Your task to perform on an android device: Open a new private window in Chrome Image 0: 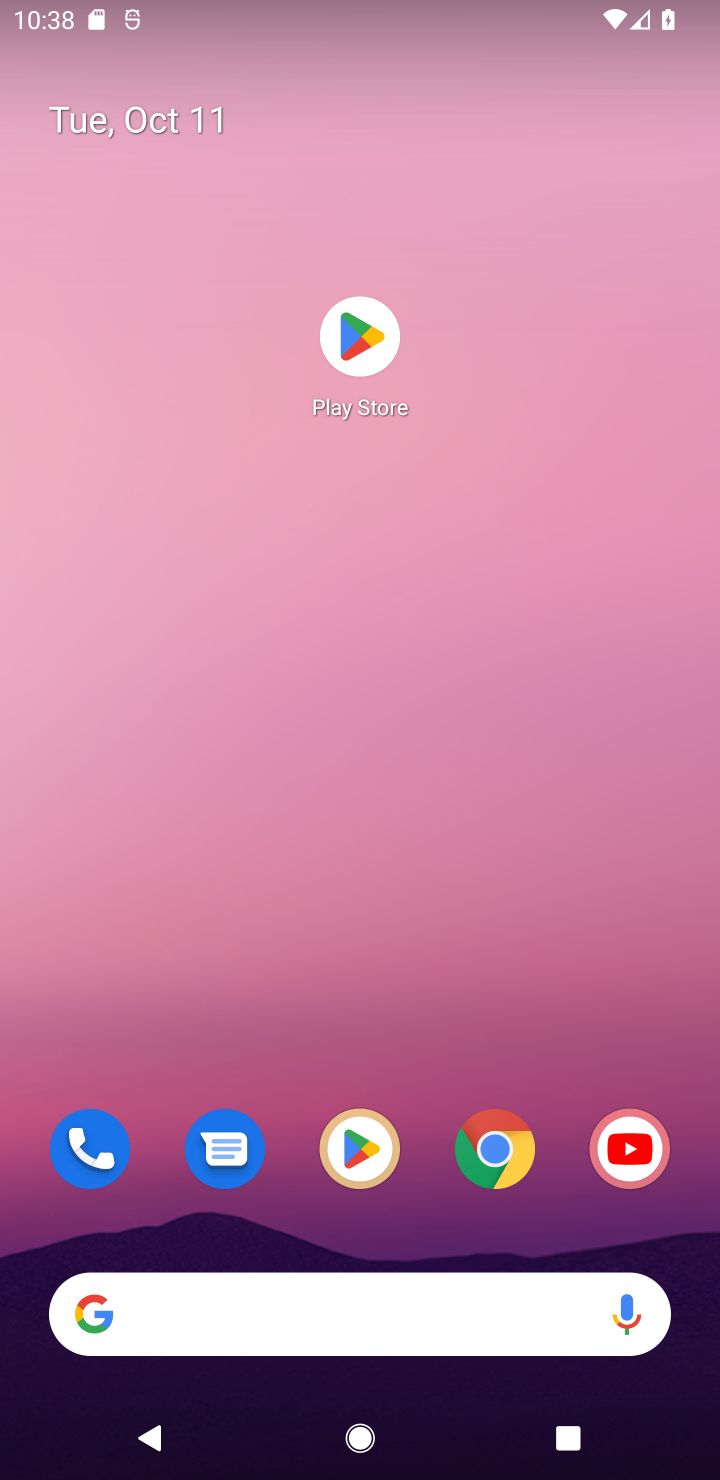
Step 0: click (493, 1150)
Your task to perform on an android device: Open a new private window in Chrome Image 1: 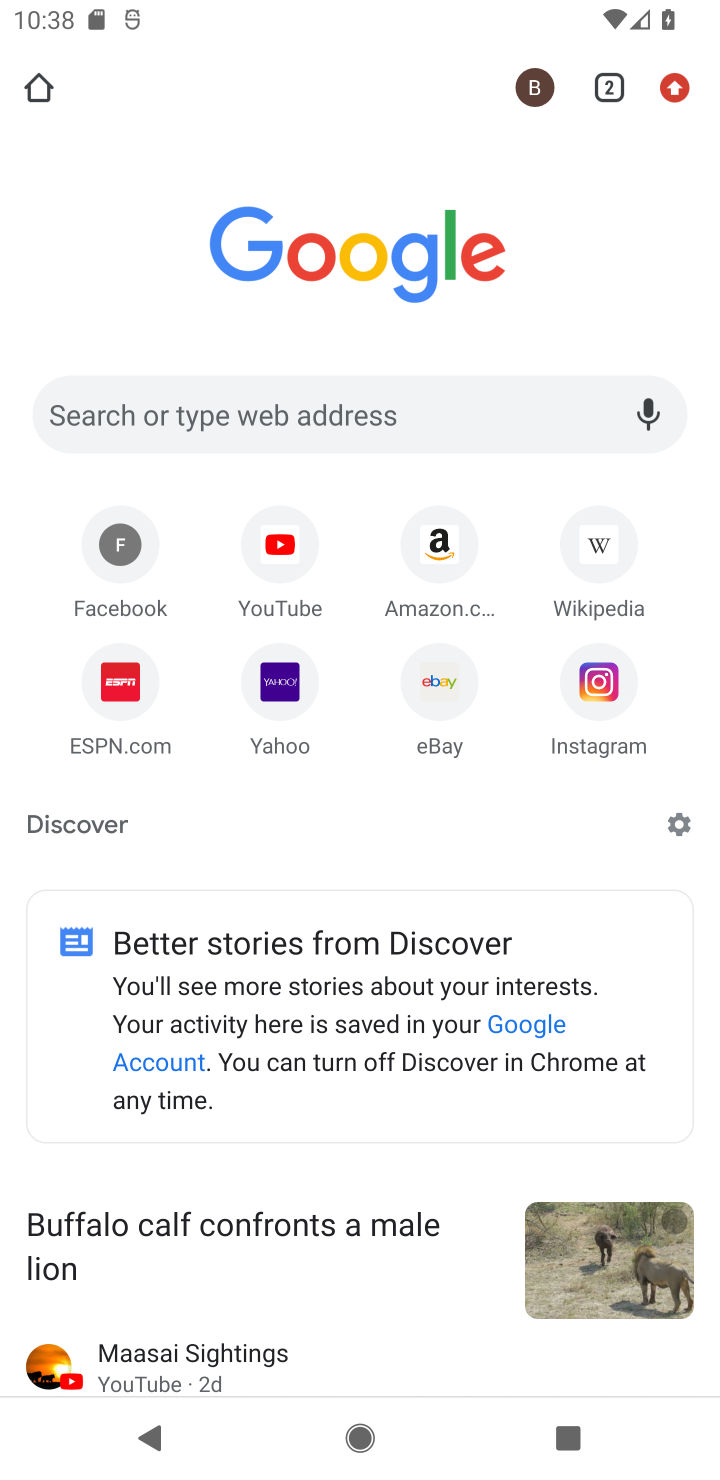
Step 1: click (603, 85)
Your task to perform on an android device: Open a new private window in Chrome Image 2: 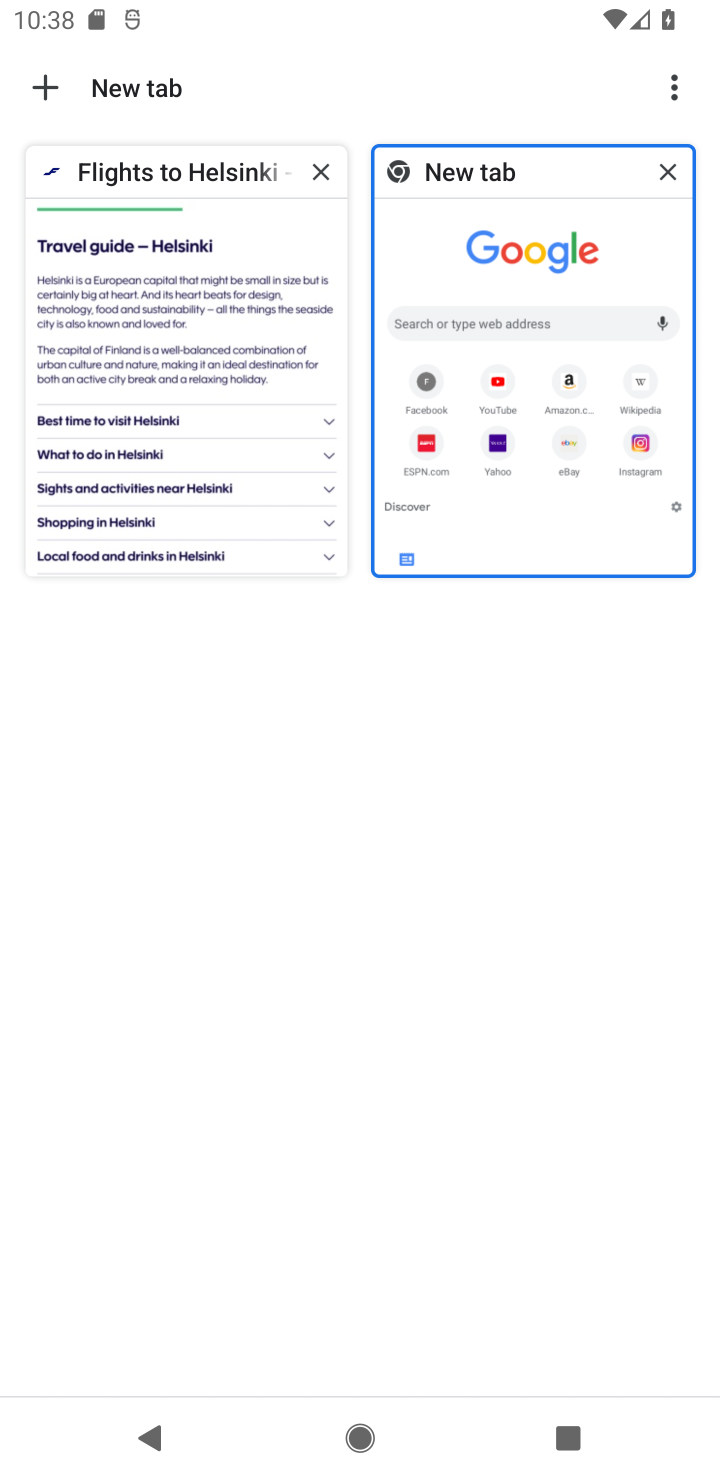
Step 2: click (45, 90)
Your task to perform on an android device: Open a new private window in Chrome Image 3: 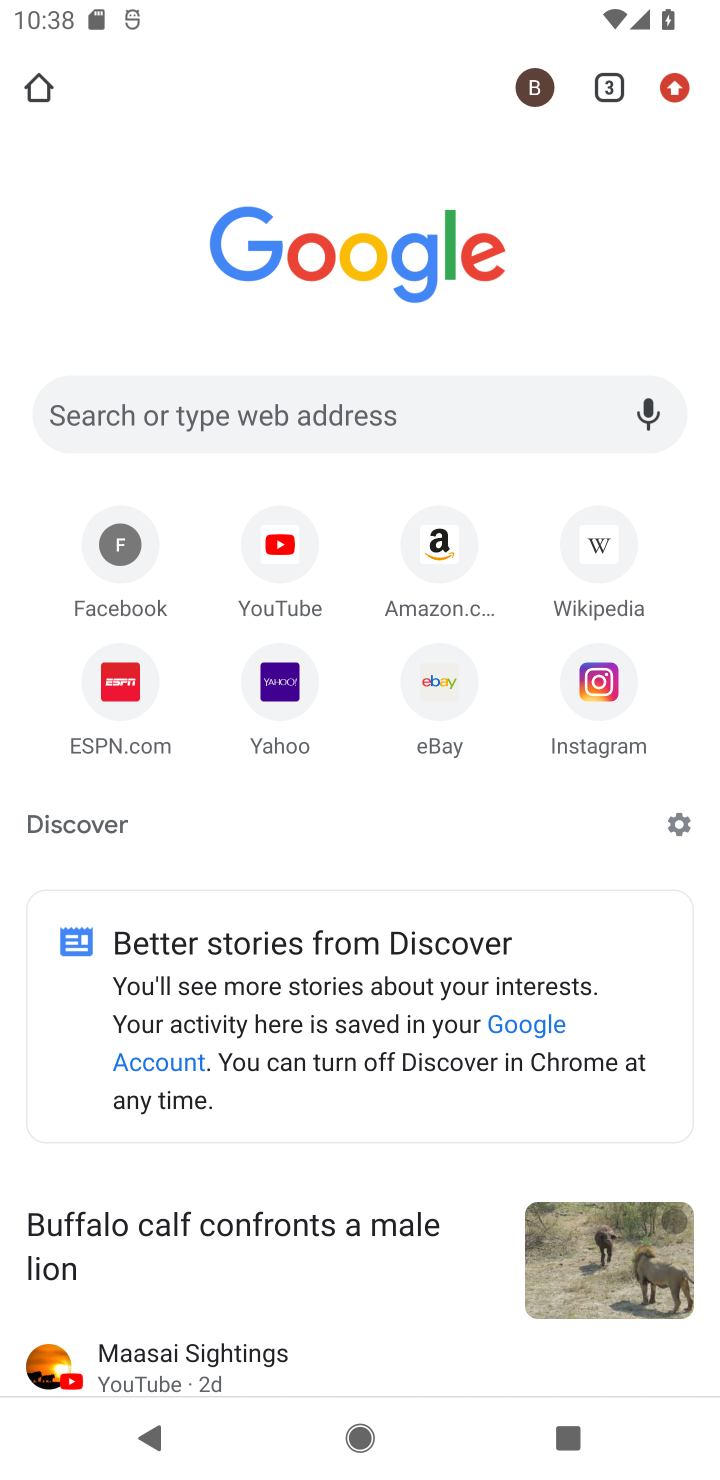
Step 3: task complete